Your task to perform on an android device: open app "Pandora - Music & Podcasts" (install if not already installed) Image 0: 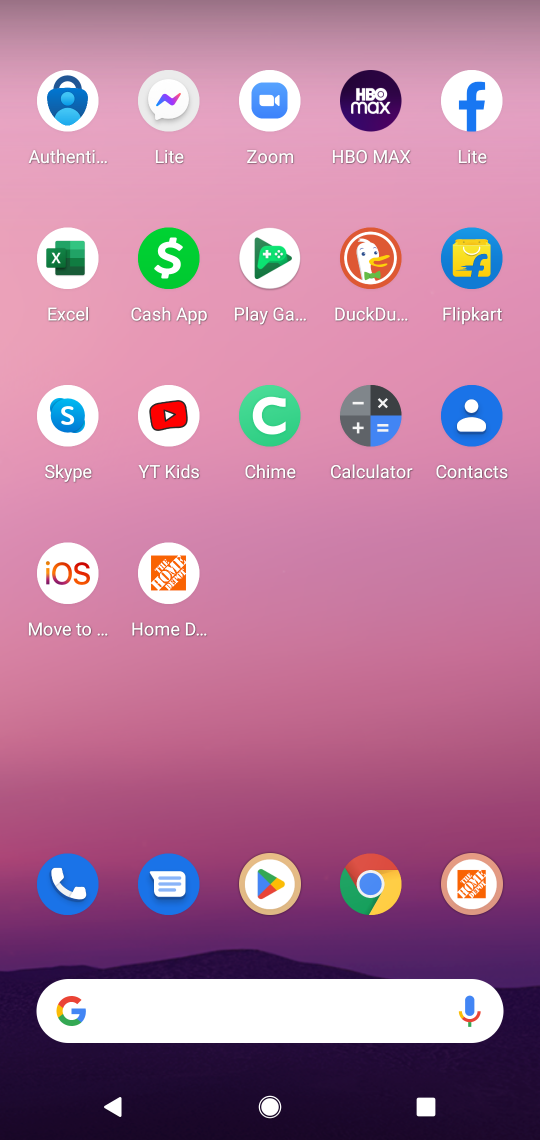
Step 0: drag from (234, 1019) to (342, 141)
Your task to perform on an android device: open app "Pandora - Music & Podcasts" (install if not already installed) Image 1: 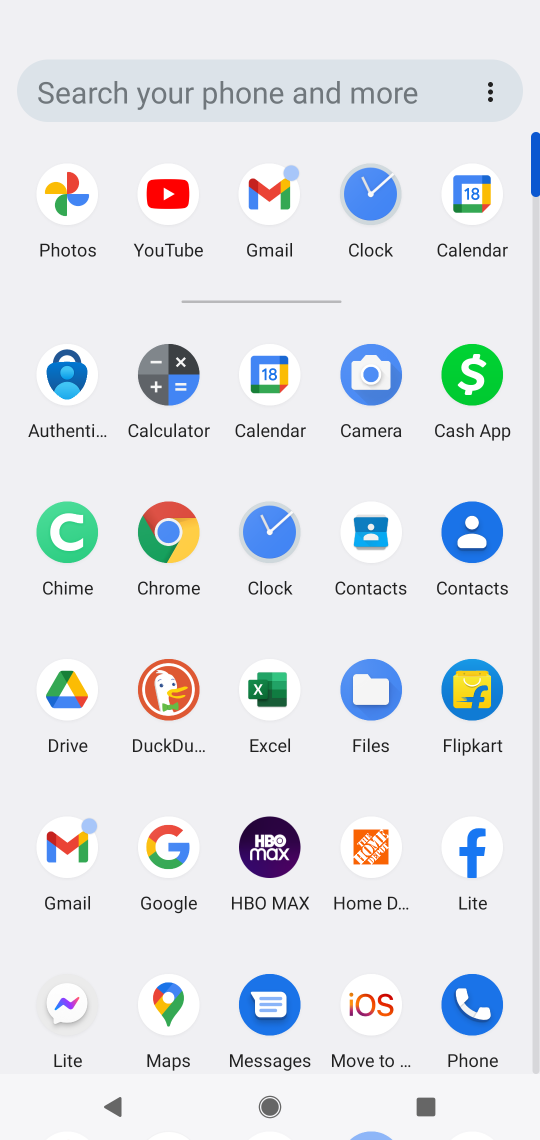
Step 1: drag from (208, 980) to (256, 521)
Your task to perform on an android device: open app "Pandora - Music & Podcasts" (install if not already installed) Image 2: 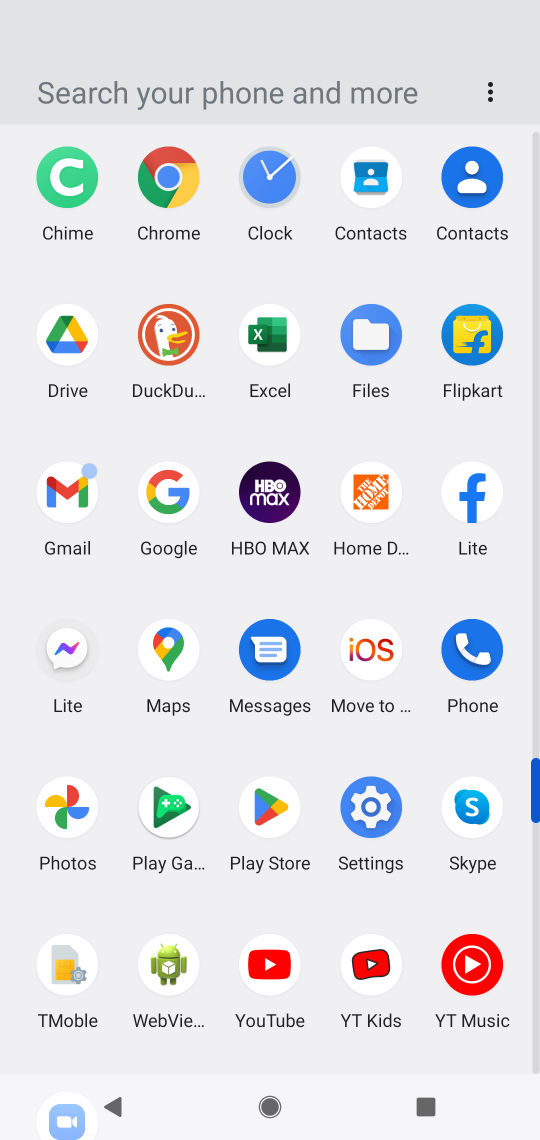
Step 2: click (276, 809)
Your task to perform on an android device: open app "Pandora - Music & Podcasts" (install if not already installed) Image 3: 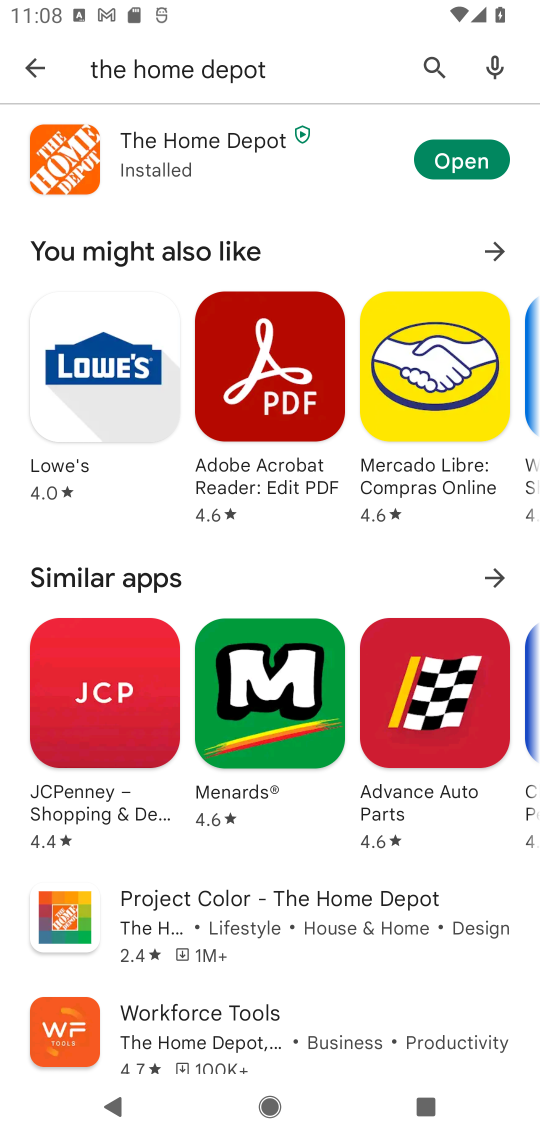
Step 3: press back button
Your task to perform on an android device: open app "Pandora - Music & Podcasts" (install if not already installed) Image 4: 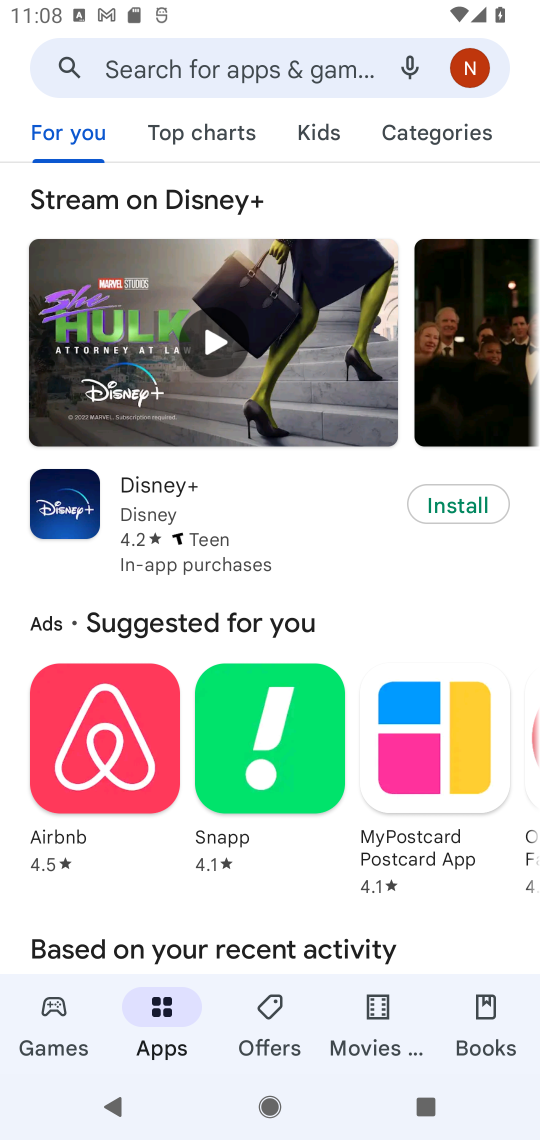
Step 4: click (310, 45)
Your task to perform on an android device: open app "Pandora - Music & Podcasts" (install if not already installed) Image 5: 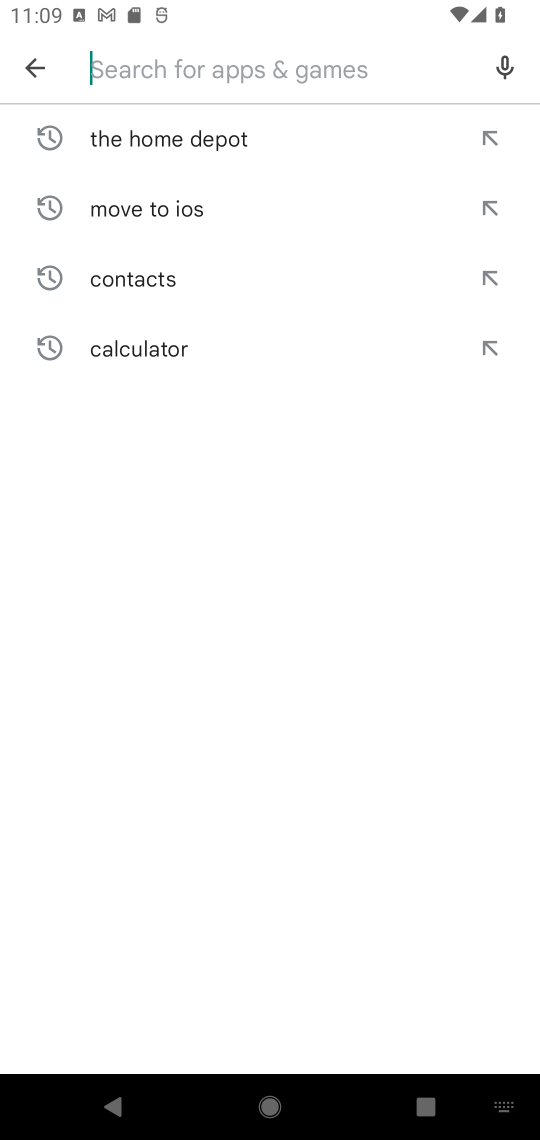
Step 5: type "Pandora - Music & Podcasts"
Your task to perform on an android device: open app "Pandora - Music & Podcasts" (install if not already installed) Image 6: 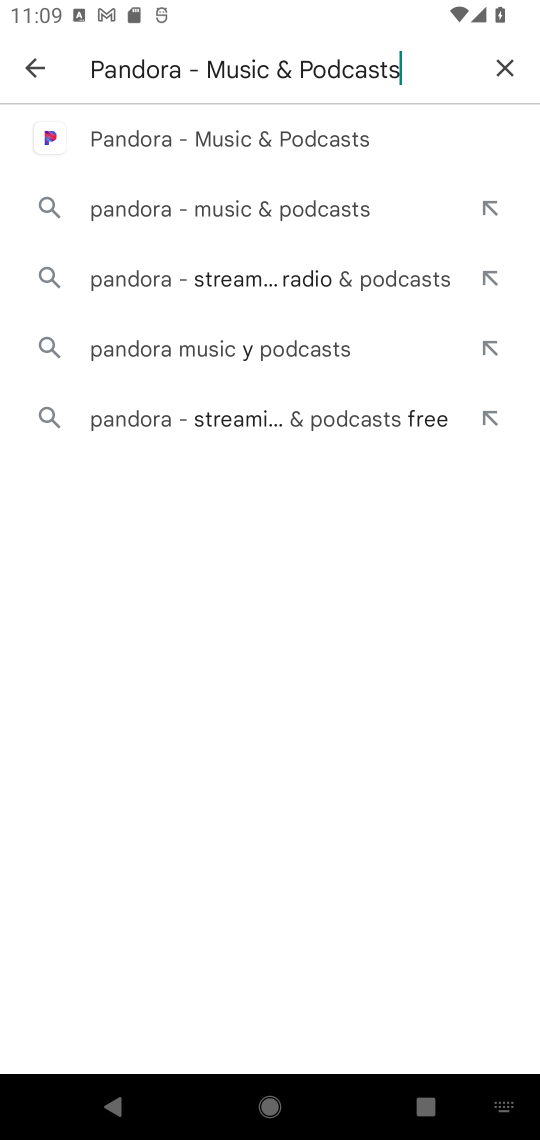
Step 6: click (300, 143)
Your task to perform on an android device: open app "Pandora - Music & Podcasts" (install if not already installed) Image 7: 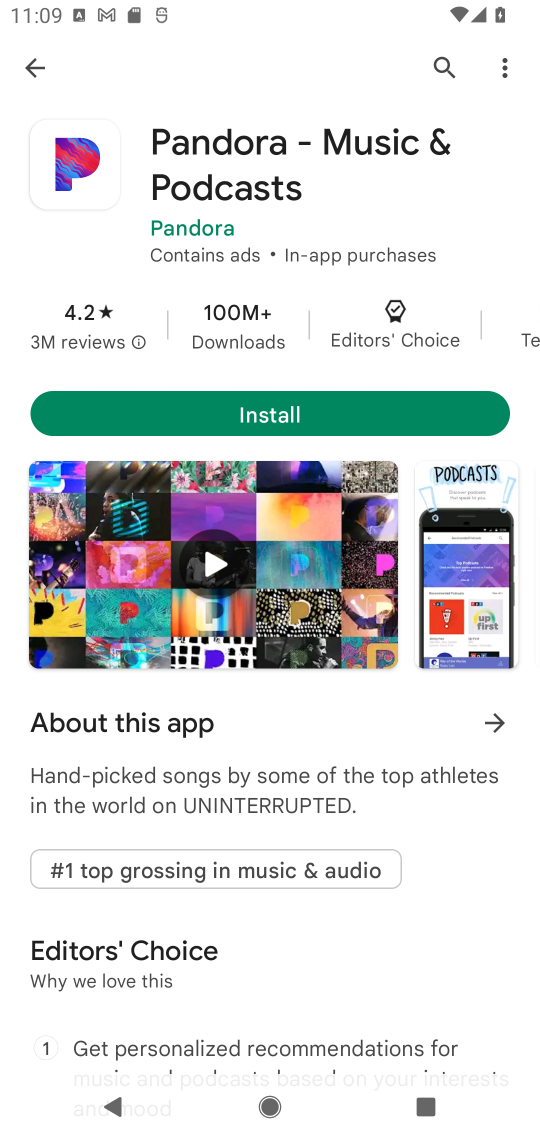
Step 7: click (308, 420)
Your task to perform on an android device: open app "Pandora - Music & Podcasts" (install if not already installed) Image 8: 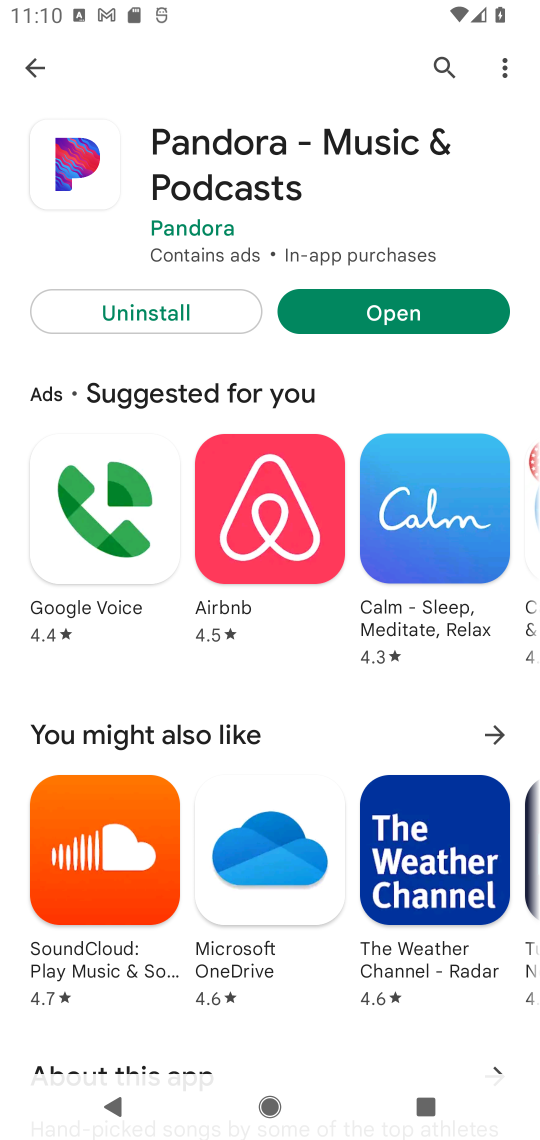
Step 8: click (417, 311)
Your task to perform on an android device: open app "Pandora - Music & Podcasts" (install if not already installed) Image 9: 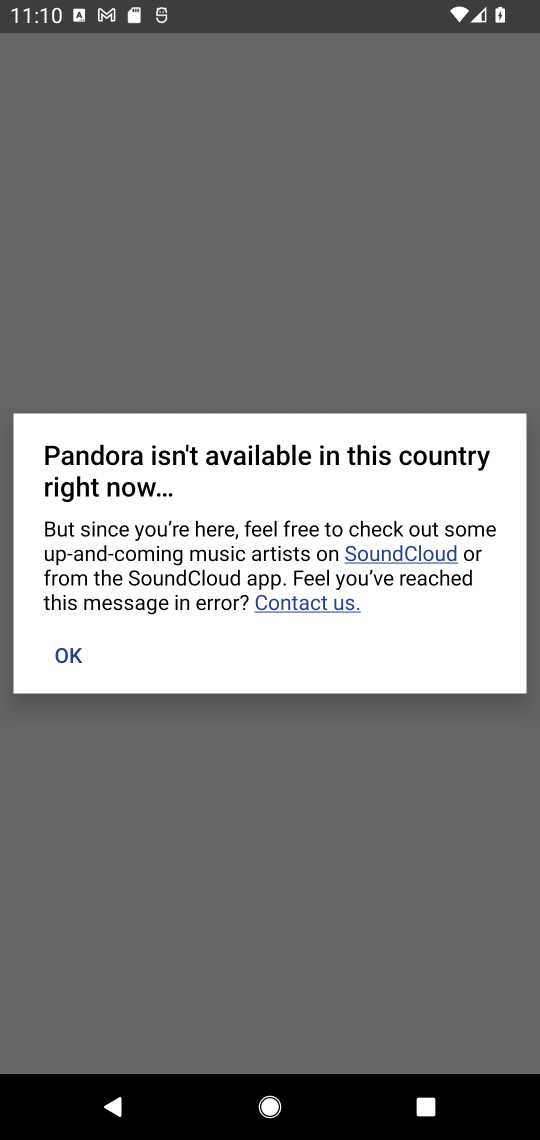
Step 9: task complete